Your task to perform on an android device: Open sound settings Image 0: 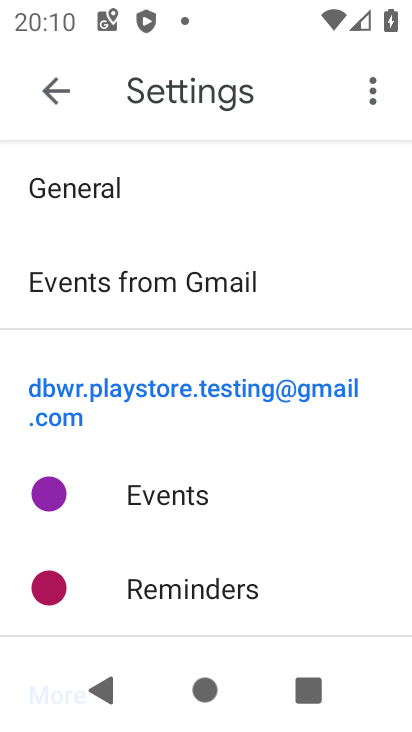
Step 0: press home button
Your task to perform on an android device: Open sound settings Image 1: 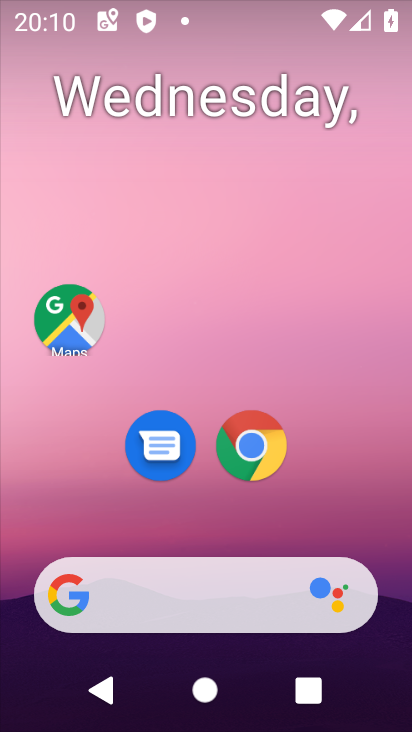
Step 1: drag from (233, 485) to (262, 216)
Your task to perform on an android device: Open sound settings Image 2: 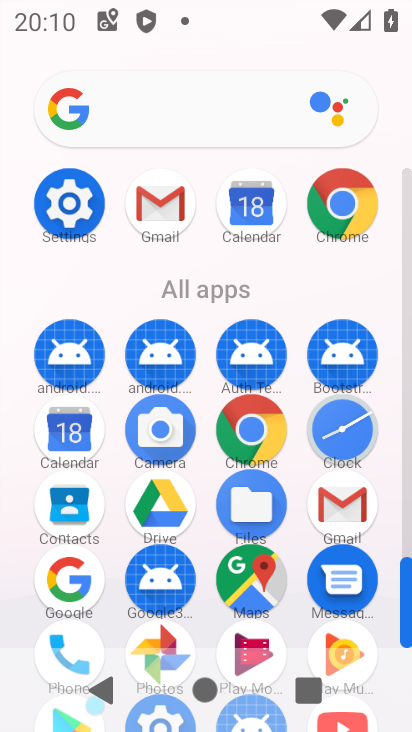
Step 2: click (54, 207)
Your task to perform on an android device: Open sound settings Image 3: 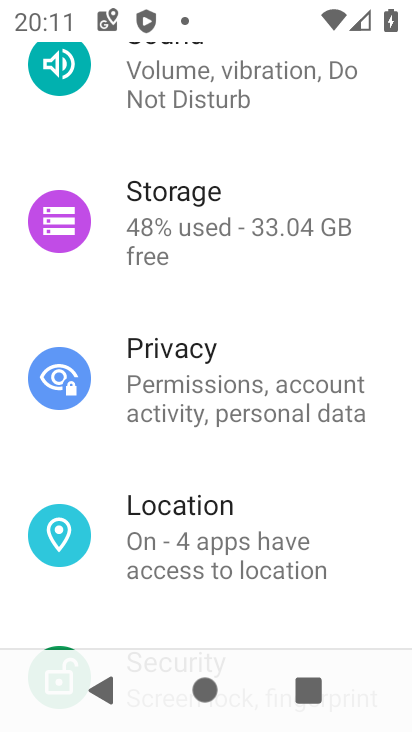
Step 3: drag from (221, 265) to (191, 567)
Your task to perform on an android device: Open sound settings Image 4: 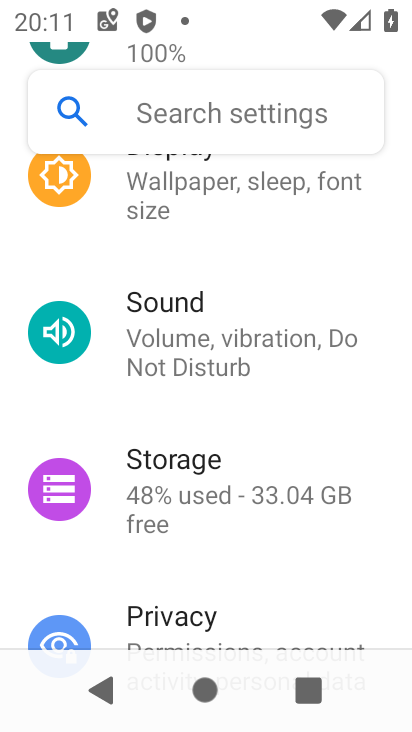
Step 4: click (207, 356)
Your task to perform on an android device: Open sound settings Image 5: 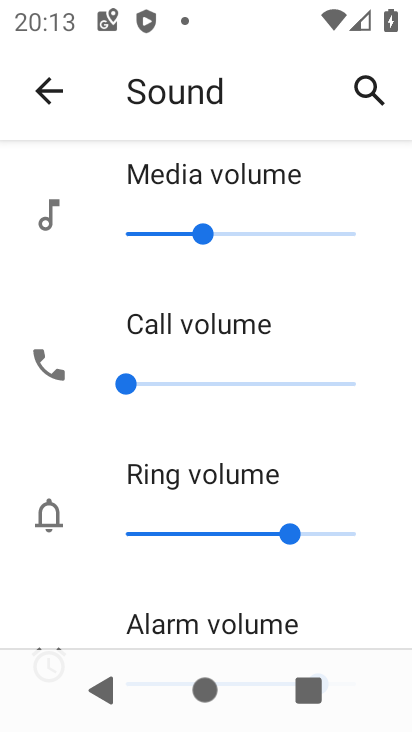
Step 5: task complete